Your task to perform on an android device: Turn on the flashlight Image 0: 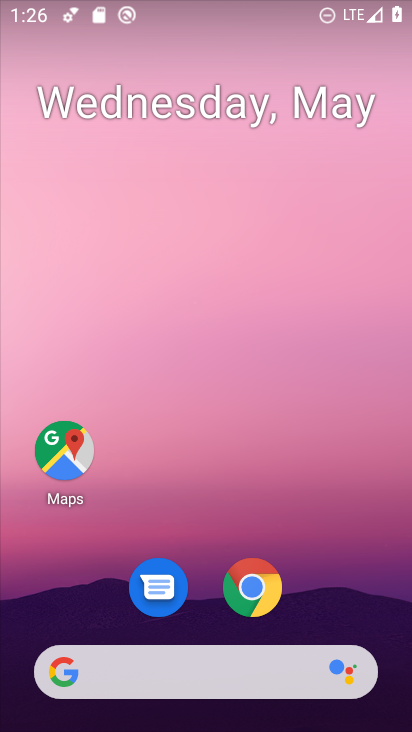
Step 0: drag from (336, 612) to (288, 333)
Your task to perform on an android device: Turn on the flashlight Image 1: 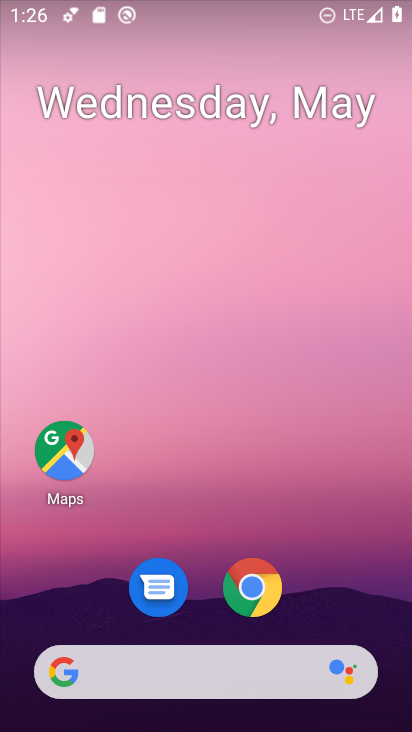
Step 1: task complete